Your task to perform on an android device: see tabs open on other devices in the chrome app Image 0: 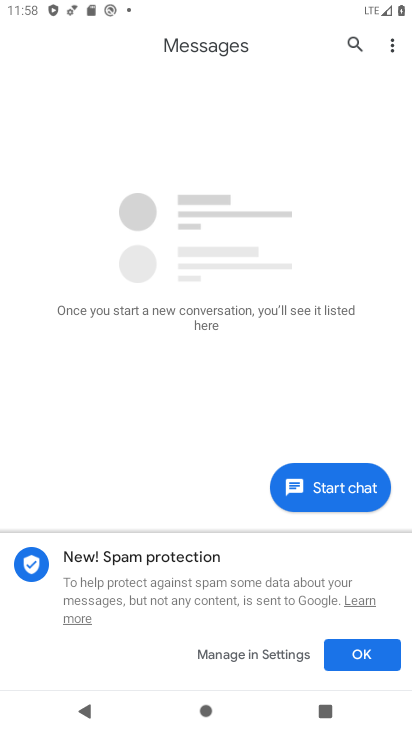
Step 0: press home button
Your task to perform on an android device: see tabs open on other devices in the chrome app Image 1: 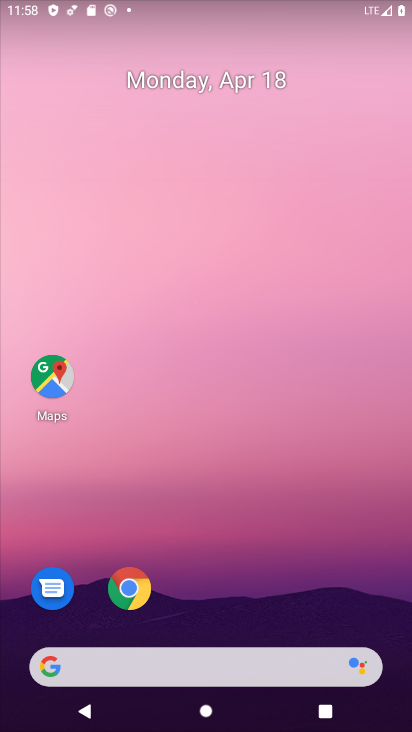
Step 1: click (127, 587)
Your task to perform on an android device: see tabs open on other devices in the chrome app Image 2: 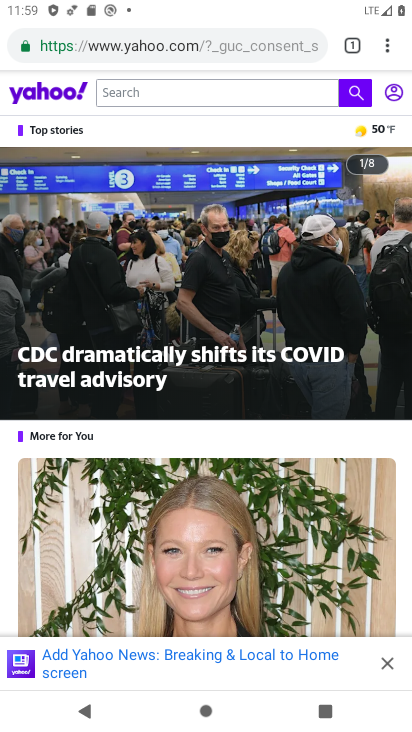
Step 2: click (385, 52)
Your task to perform on an android device: see tabs open on other devices in the chrome app Image 3: 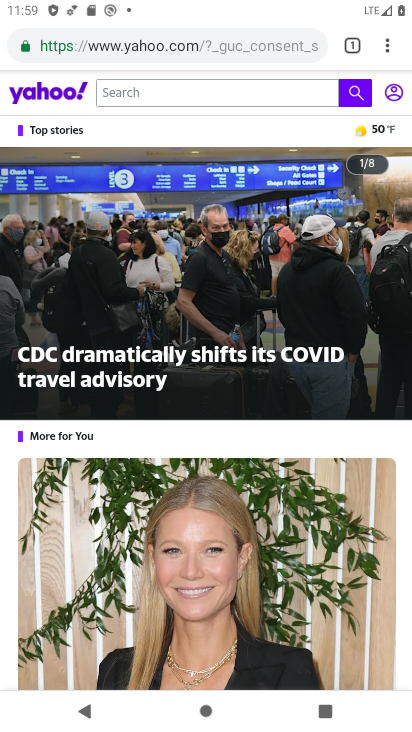
Step 3: click (385, 52)
Your task to perform on an android device: see tabs open on other devices in the chrome app Image 4: 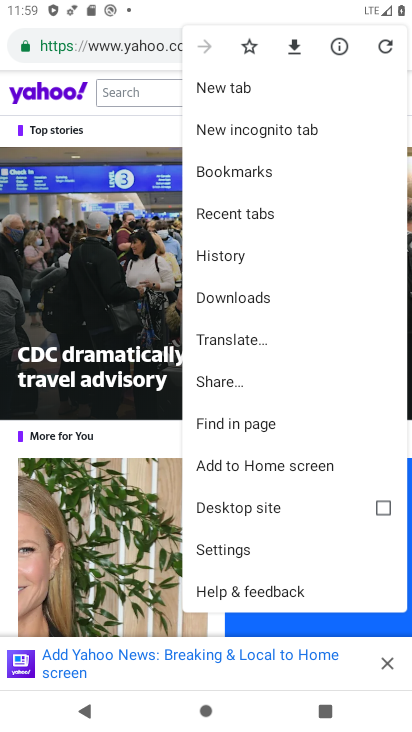
Step 4: click (231, 217)
Your task to perform on an android device: see tabs open on other devices in the chrome app Image 5: 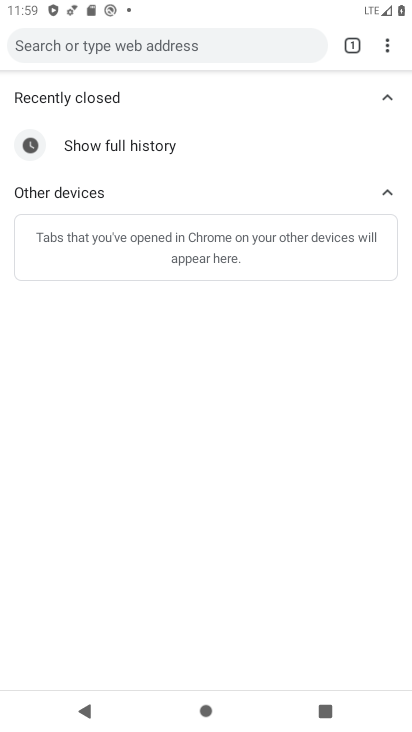
Step 5: task complete